Your task to perform on an android device: turn on translation in the chrome app Image 0: 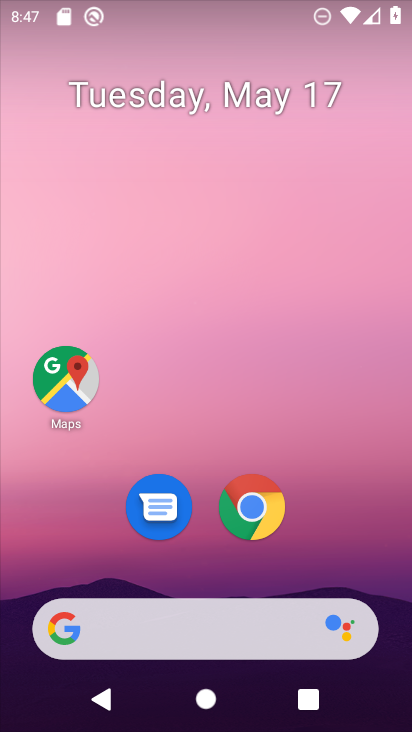
Step 0: click (261, 502)
Your task to perform on an android device: turn on translation in the chrome app Image 1: 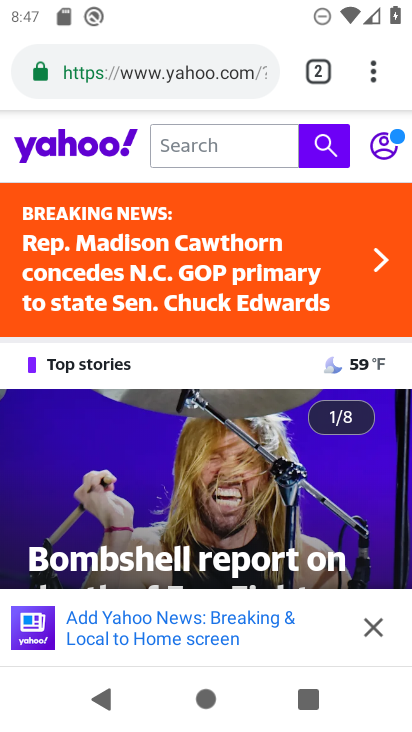
Step 1: click (372, 69)
Your task to perform on an android device: turn on translation in the chrome app Image 2: 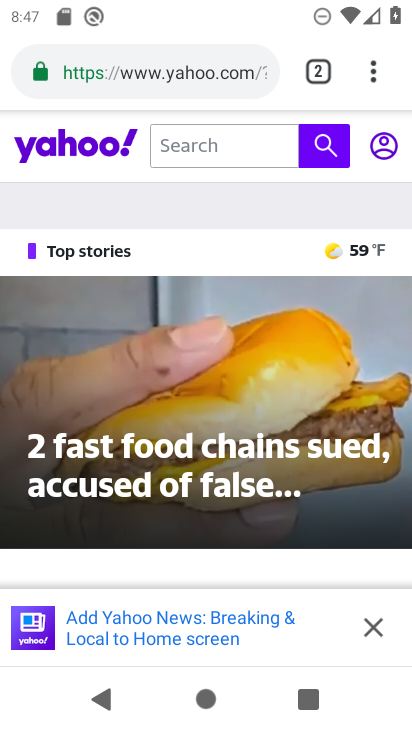
Step 2: click (374, 69)
Your task to perform on an android device: turn on translation in the chrome app Image 3: 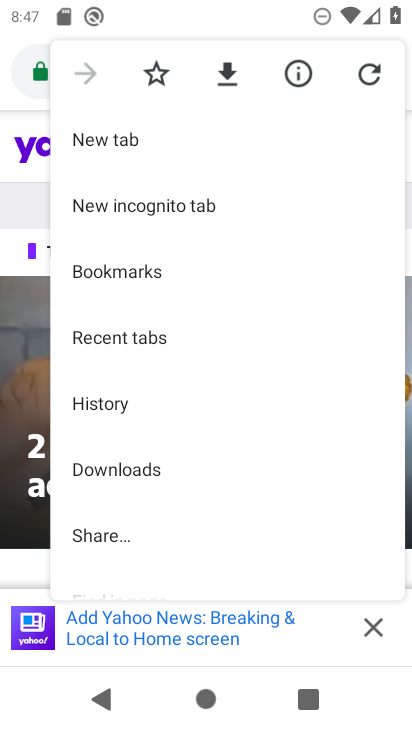
Step 3: drag from (261, 497) to (266, 135)
Your task to perform on an android device: turn on translation in the chrome app Image 4: 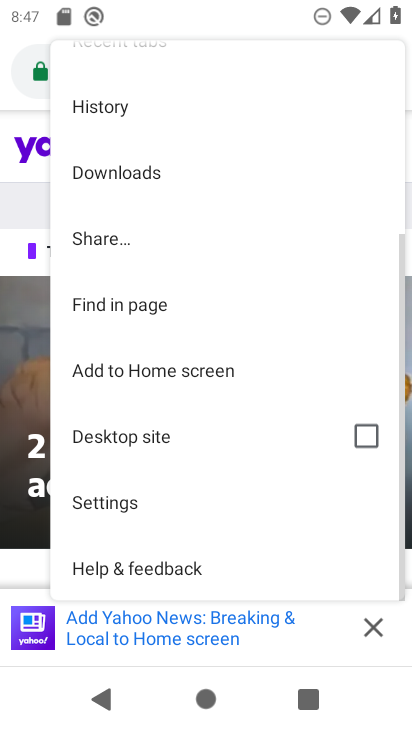
Step 4: click (110, 502)
Your task to perform on an android device: turn on translation in the chrome app Image 5: 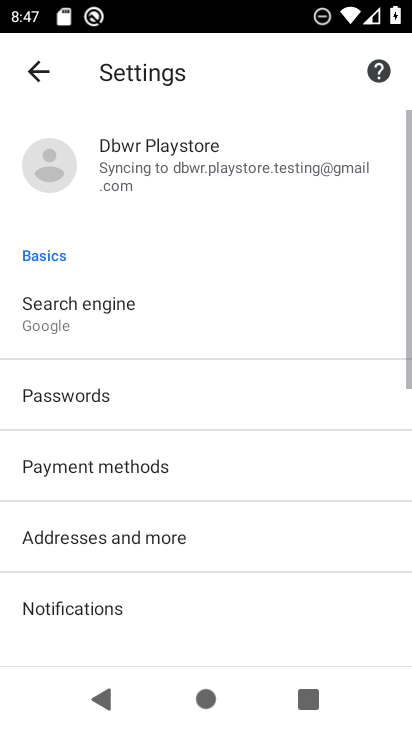
Step 5: drag from (140, 542) to (150, 155)
Your task to perform on an android device: turn on translation in the chrome app Image 6: 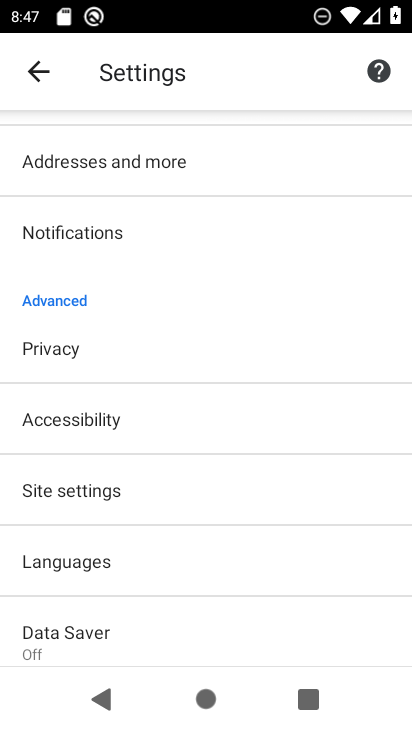
Step 6: click (74, 561)
Your task to perform on an android device: turn on translation in the chrome app Image 7: 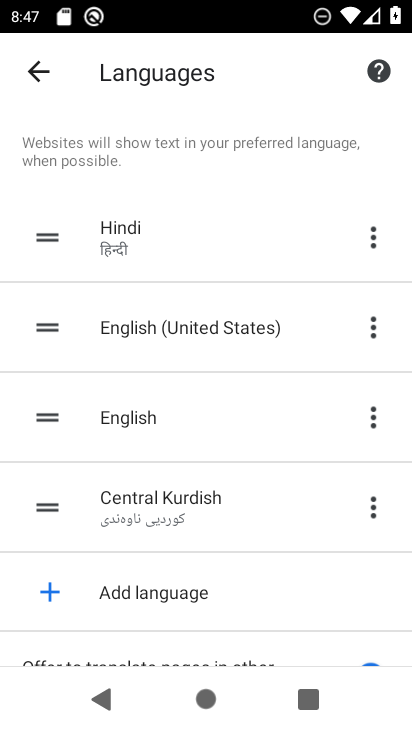
Step 7: task complete